Your task to perform on an android device: toggle notification dots Image 0: 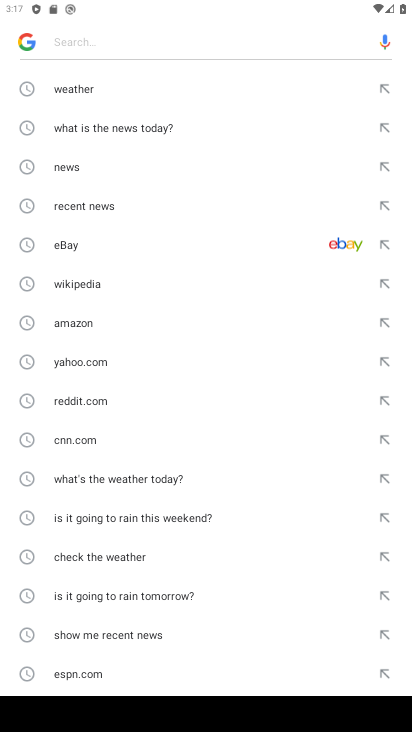
Step 0: press home button
Your task to perform on an android device: toggle notification dots Image 1: 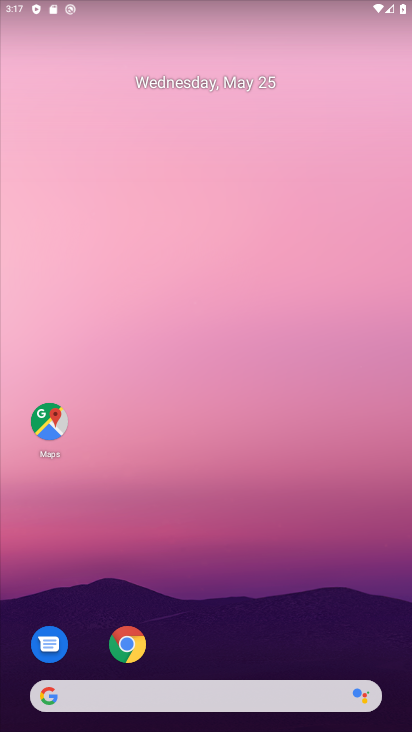
Step 1: drag from (233, 664) to (256, 33)
Your task to perform on an android device: toggle notification dots Image 2: 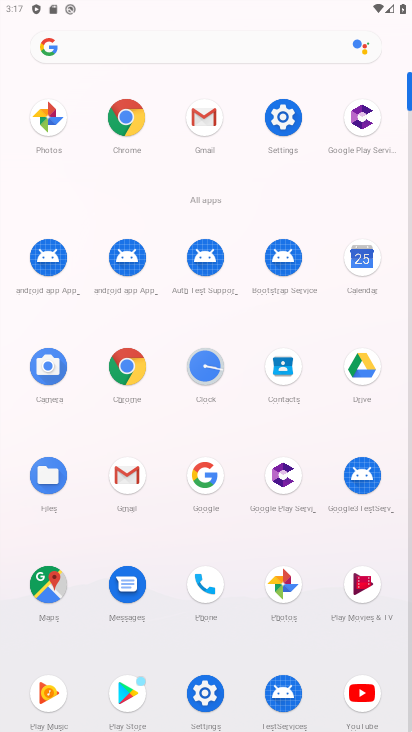
Step 2: click (287, 121)
Your task to perform on an android device: toggle notification dots Image 3: 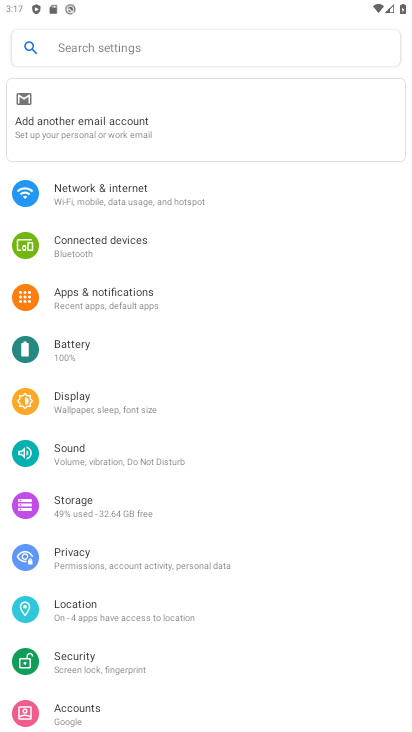
Step 3: click (96, 300)
Your task to perform on an android device: toggle notification dots Image 4: 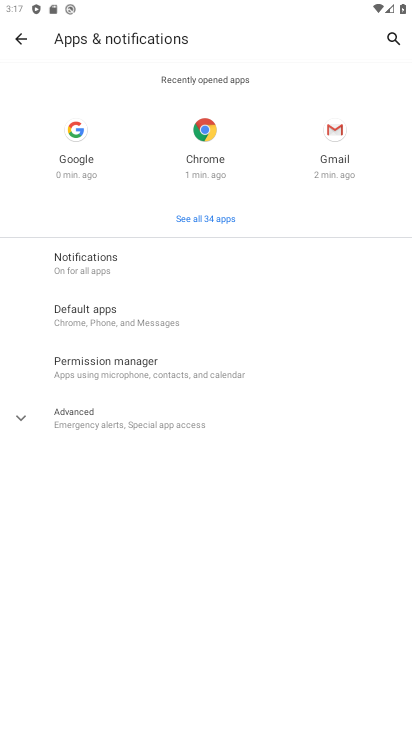
Step 4: click (73, 266)
Your task to perform on an android device: toggle notification dots Image 5: 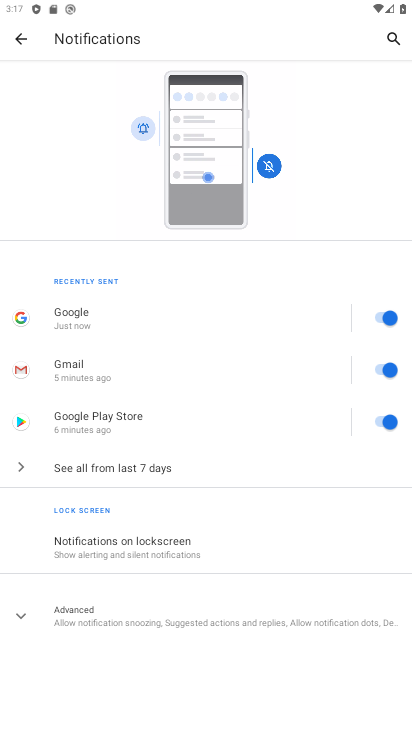
Step 5: click (20, 627)
Your task to perform on an android device: toggle notification dots Image 6: 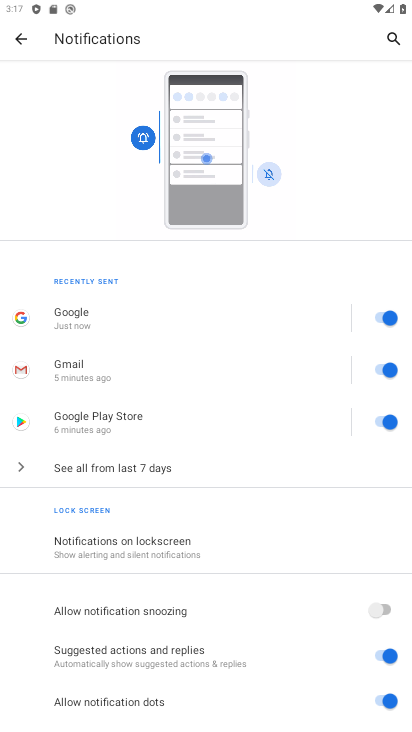
Step 6: click (393, 709)
Your task to perform on an android device: toggle notification dots Image 7: 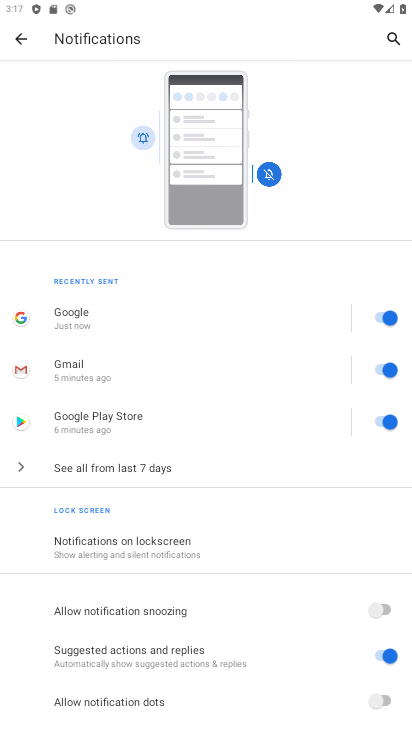
Step 7: task complete